Your task to perform on an android device: Is it going to rain this weekend? Image 0: 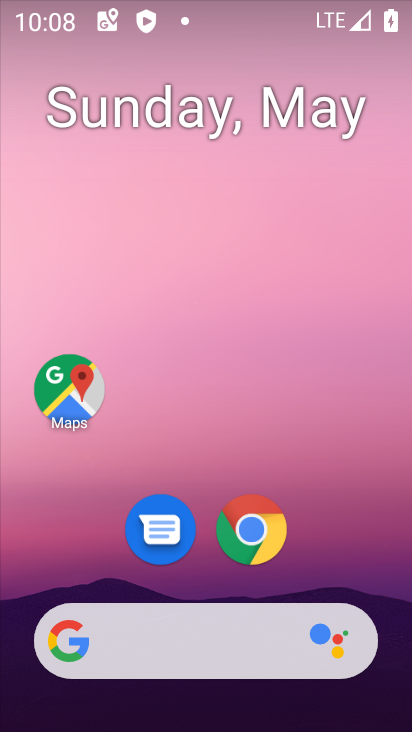
Step 0: drag from (374, 576) to (291, 24)
Your task to perform on an android device: Is it going to rain this weekend? Image 1: 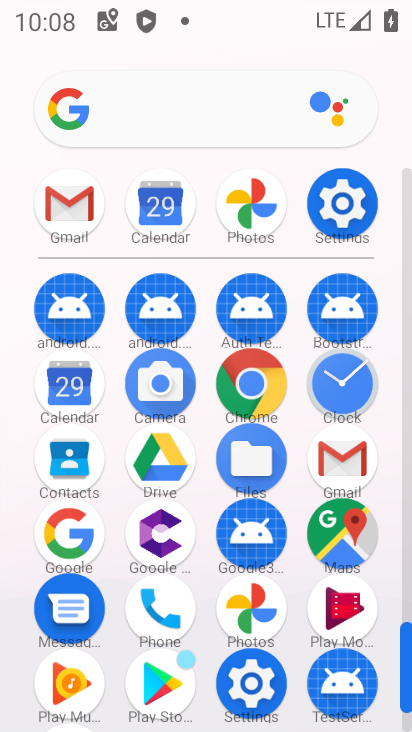
Step 1: click (182, 119)
Your task to perform on an android device: Is it going to rain this weekend? Image 2: 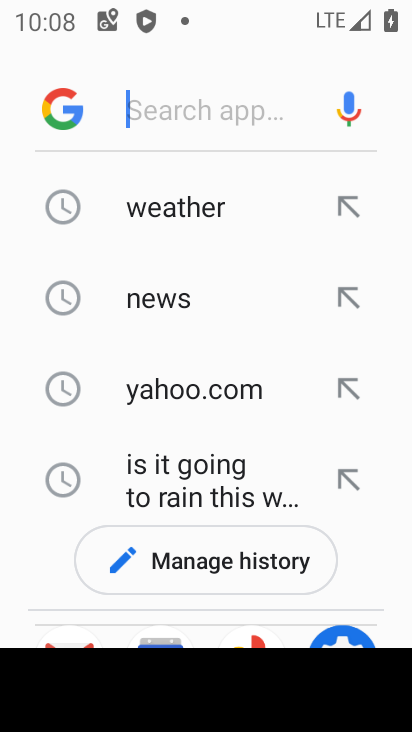
Step 2: type "rain"
Your task to perform on an android device: Is it going to rain this weekend? Image 3: 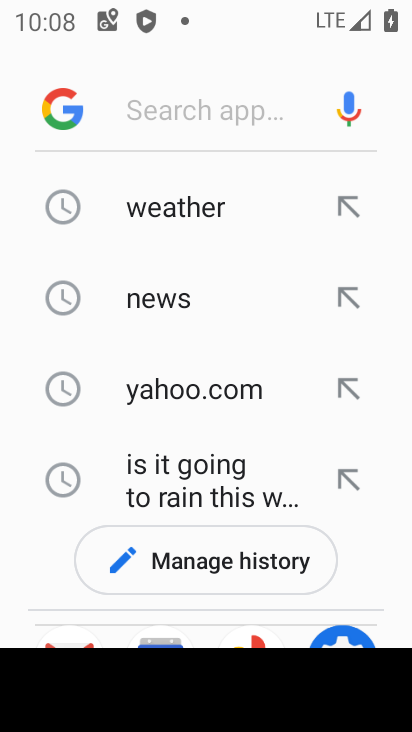
Step 3: click (215, 196)
Your task to perform on an android device: Is it going to rain this weekend? Image 4: 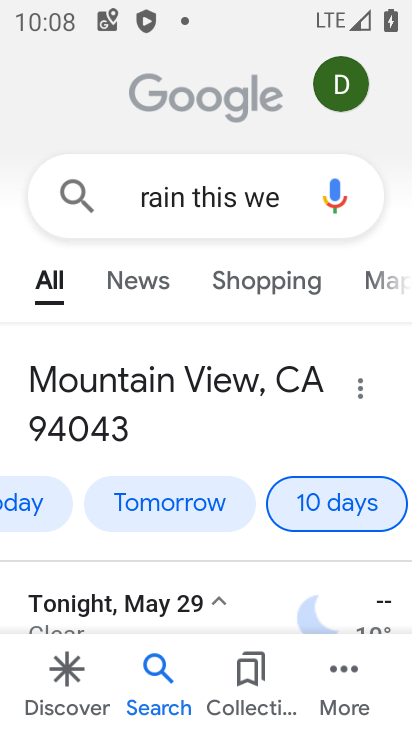
Step 4: click (308, 497)
Your task to perform on an android device: Is it going to rain this weekend? Image 5: 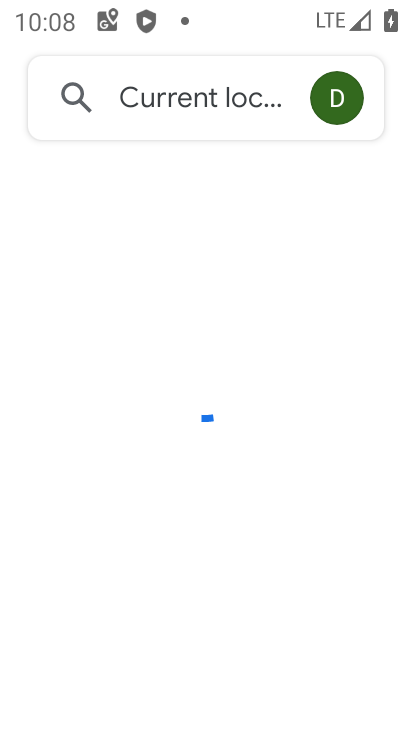
Step 5: task complete